Your task to perform on an android device: find which apps use the phone's location Image 0: 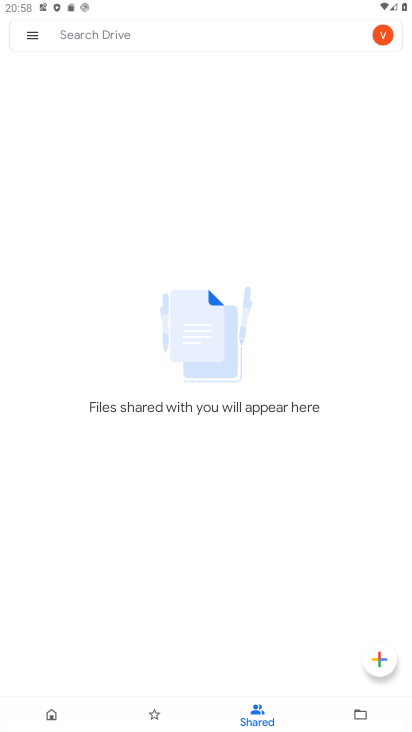
Step 0: press home button
Your task to perform on an android device: find which apps use the phone's location Image 1: 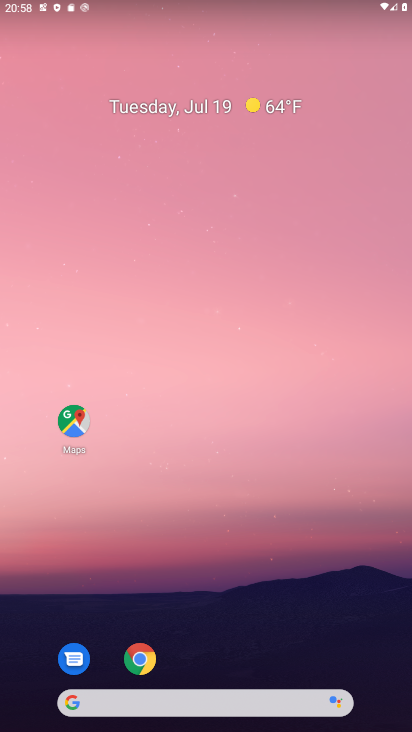
Step 1: drag from (204, 660) to (193, 123)
Your task to perform on an android device: find which apps use the phone's location Image 2: 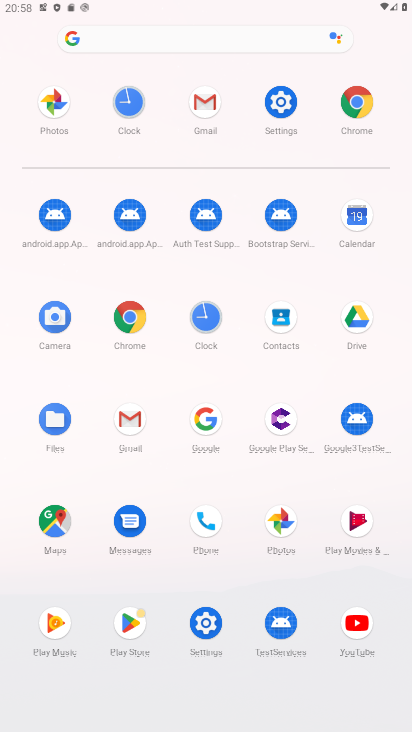
Step 2: click (289, 99)
Your task to perform on an android device: find which apps use the phone's location Image 3: 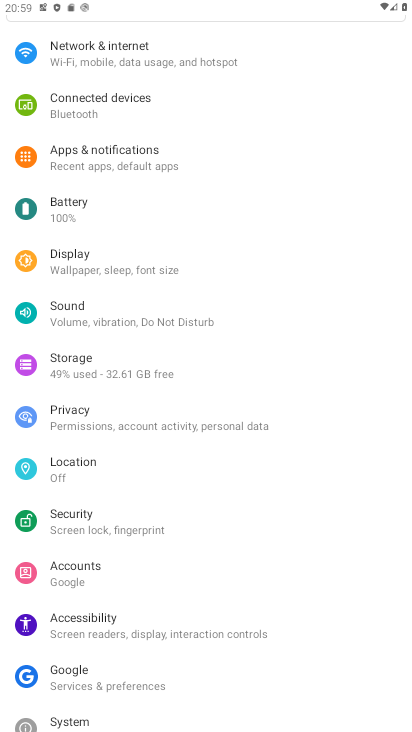
Step 3: click (91, 466)
Your task to perform on an android device: find which apps use the phone's location Image 4: 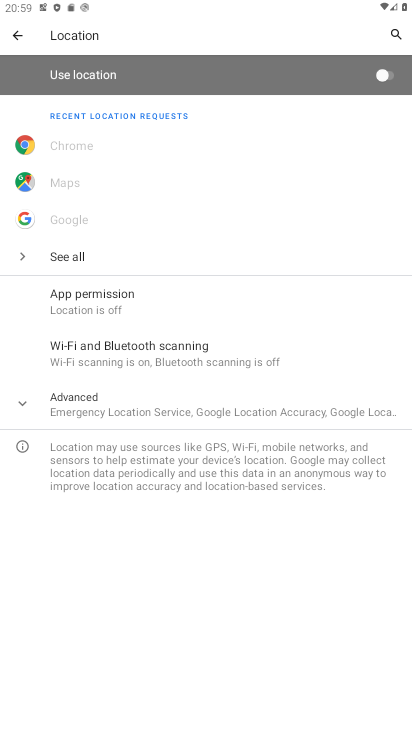
Step 4: click (63, 251)
Your task to perform on an android device: find which apps use the phone's location Image 5: 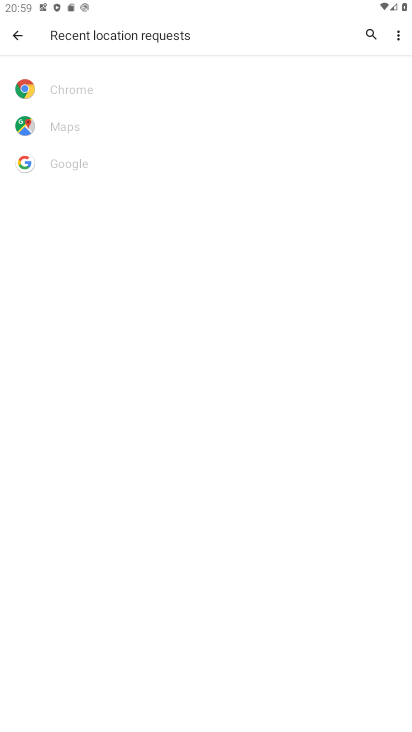
Step 5: task complete